Your task to perform on an android device: Go to Yahoo.com Image 0: 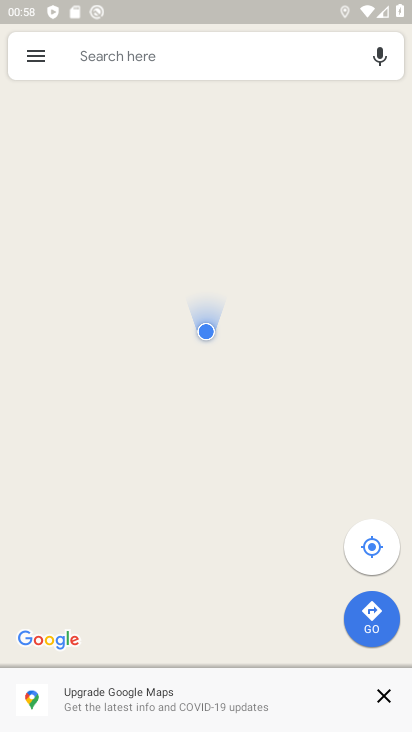
Step 0: press home button
Your task to perform on an android device: Go to Yahoo.com Image 1: 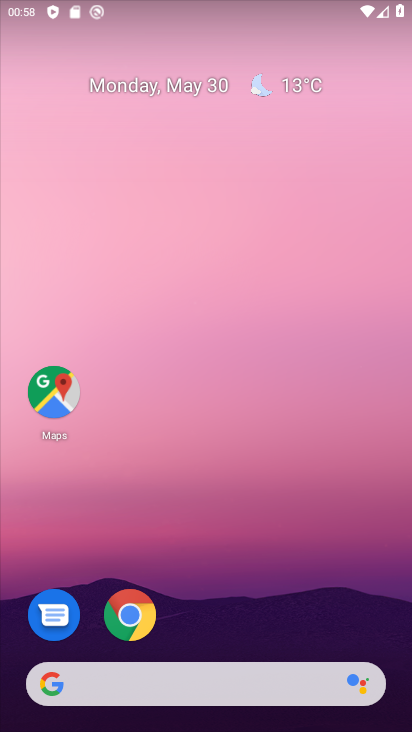
Step 1: click (141, 616)
Your task to perform on an android device: Go to Yahoo.com Image 2: 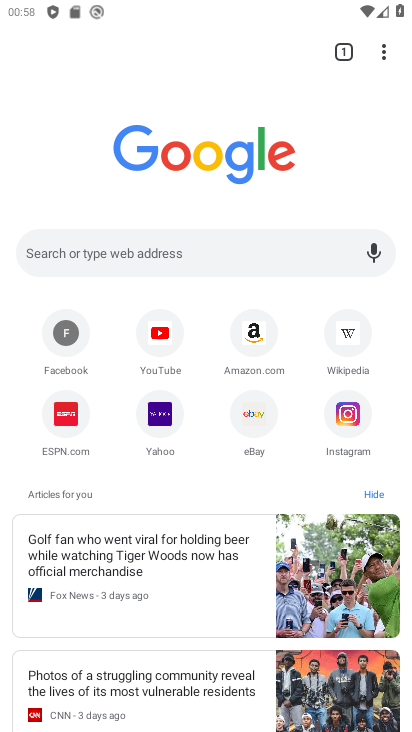
Step 2: click (153, 419)
Your task to perform on an android device: Go to Yahoo.com Image 3: 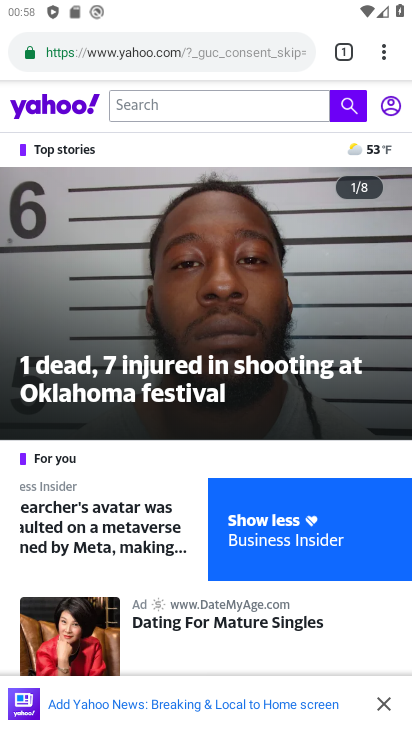
Step 3: task complete